Your task to perform on an android device: toggle wifi Image 0: 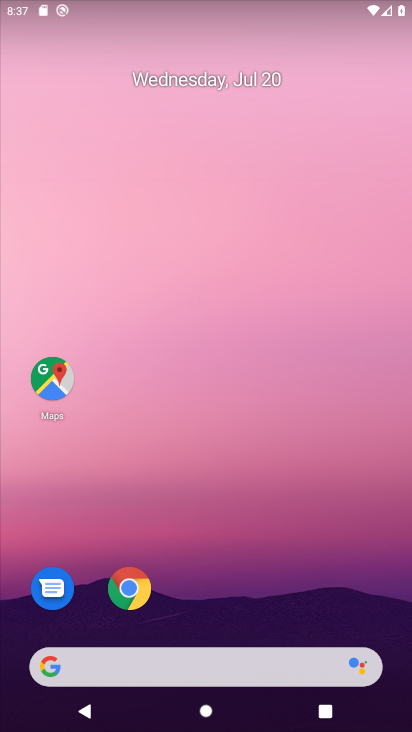
Step 0: press home button
Your task to perform on an android device: toggle wifi Image 1: 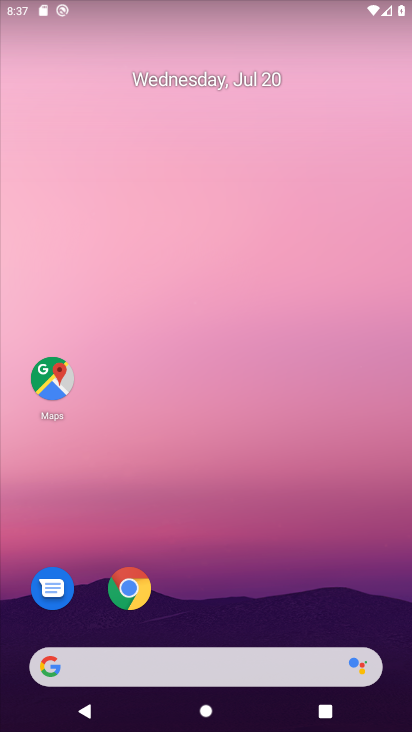
Step 1: drag from (207, 628) to (210, 35)
Your task to perform on an android device: toggle wifi Image 2: 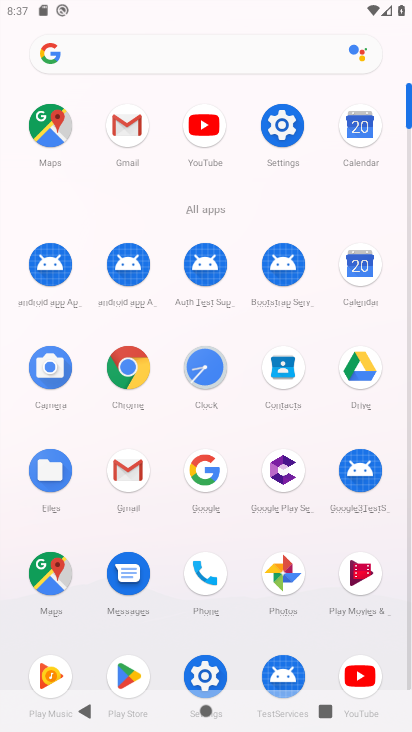
Step 2: click (277, 119)
Your task to perform on an android device: toggle wifi Image 3: 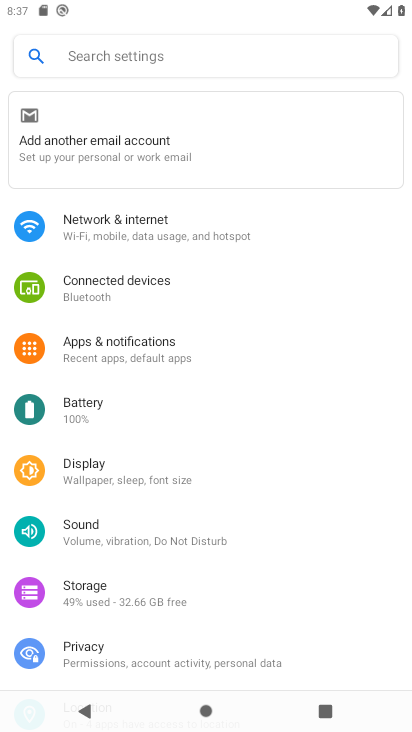
Step 3: click (122, 229)
Your task to perform on an android device: toggle wifi Image 4: 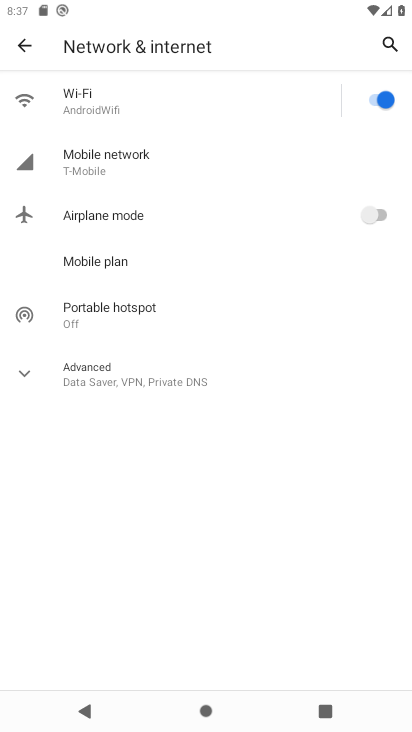
Step 4: click (372, 91)
Your task to perform on an android device: toggle wifi Image 5: 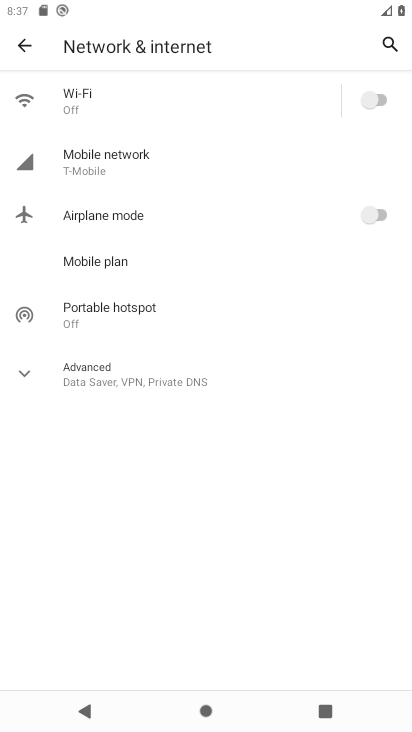
Step 5: task complete